Your task to perform on an android device: turn on priority inbox in the gmail app Image 0: 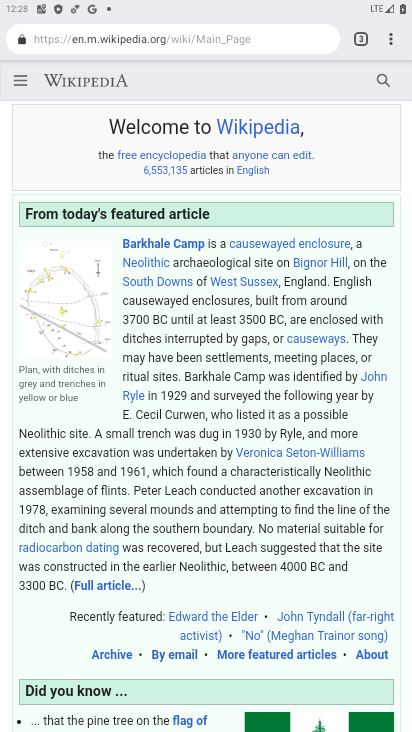
Step 0: press home button
Your task to perform on an android device: turn on priority inbox in the gmail app Image 1: 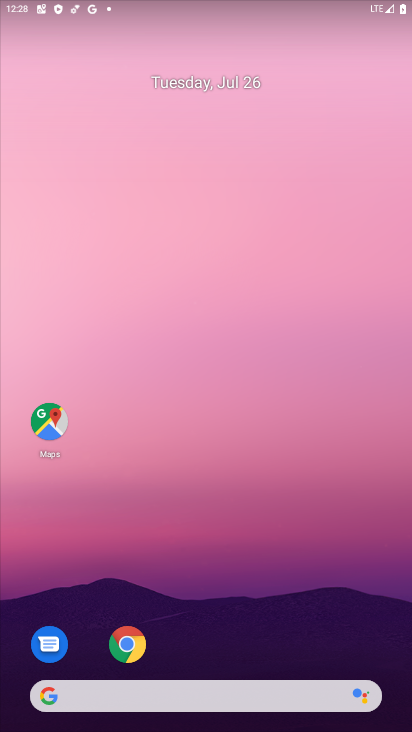
Step 1: drag from (249, 668) to (257, 39)
Your task to perform on an android device: turn on priority inbox in the gmail app Image 2: 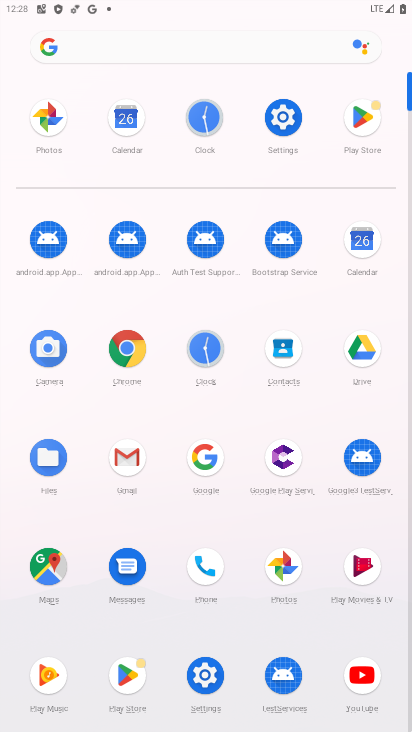
Step 2: click (123, 451)
Your task to perform on an android device: turn on priority inbox in the gmail app Image 3: 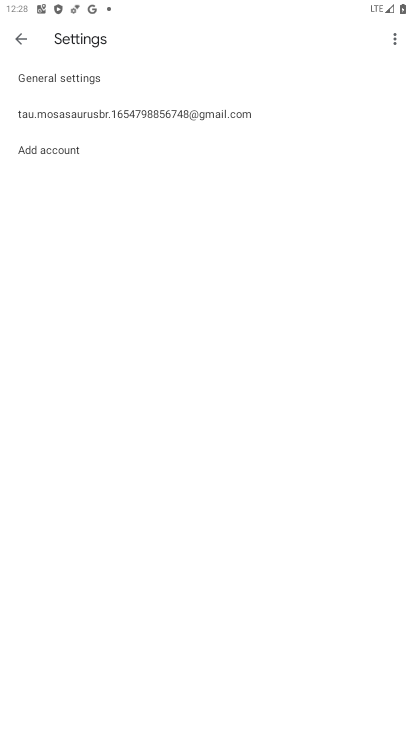
Step 3: click (81, 117)
Your task to perform on an android device: turn on priority inbox in the gmail app Image 4: 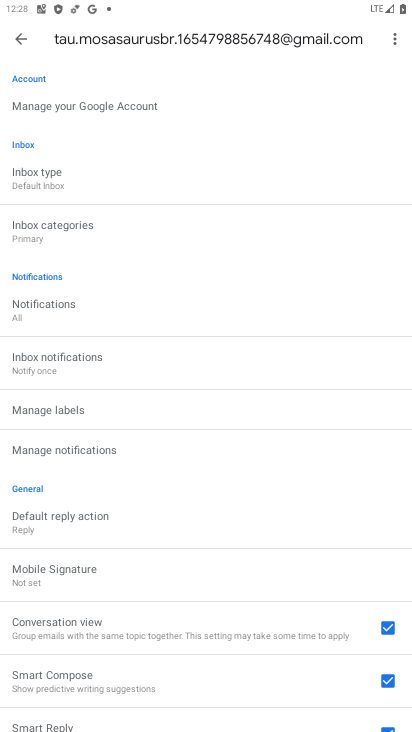
Step 4: click (28, 183)
Your task to perform on an android device: turn on priority inbox in the gmail app Image 5: 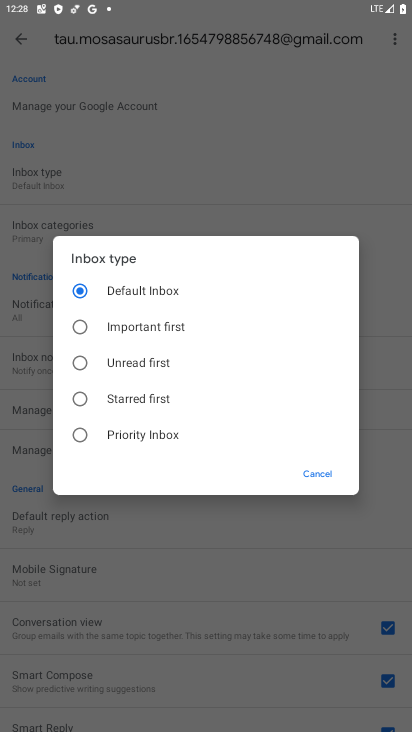
Step 5: click (83, 438)
Your task to perform on an android device: turn on priority inbox in the gmail app Image 6: 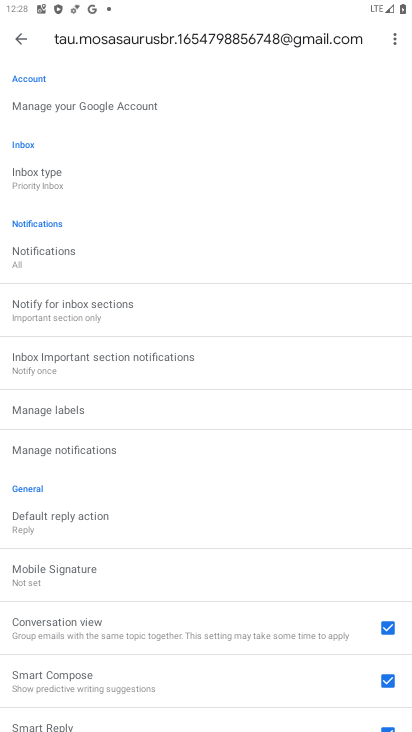
Step 6: task complete